Your task to perform on an android device: snooze an email in the gmail app Image 0: 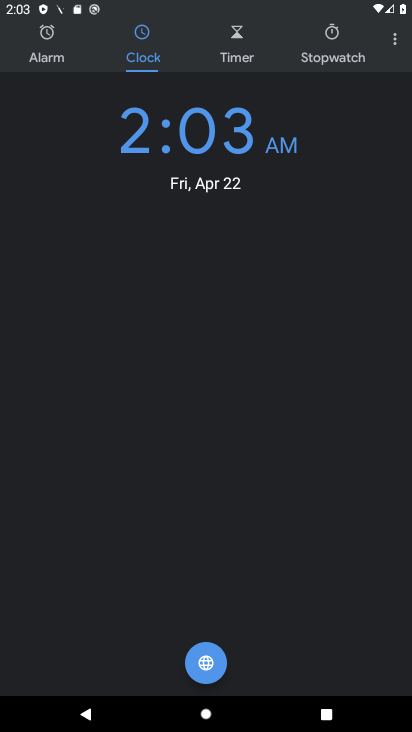
Step 0: press home button
Your task to perform on an android device: snooze an email in the gmail app Image 1: 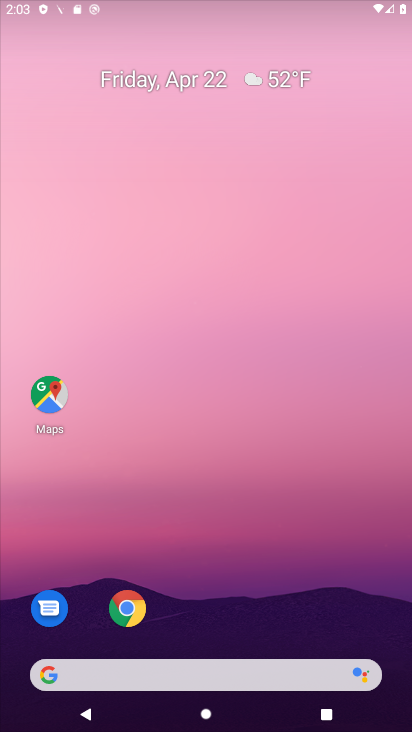
Step 1: drag from (316, 575) to (253, 100)
Your task to perform on an android device: snooze an email in the gmail app Image 2: 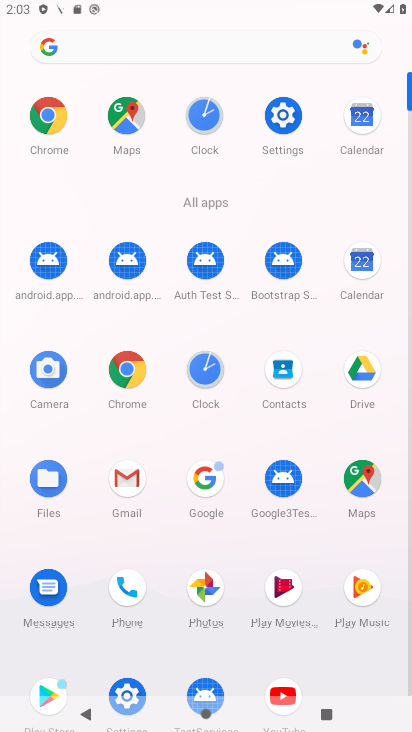
Step 2: click (129, 474)
Your task to perform on an android device: snooze an email in the gmail app Image 3: 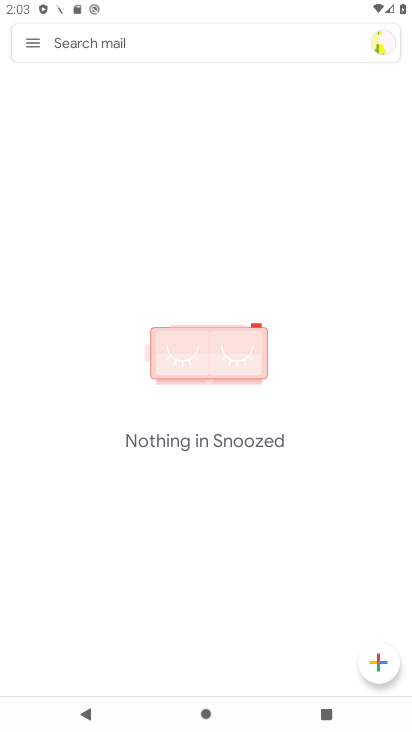
Step 3: click (22, 42)
Your task to perform on an android device: snooze an email in the gmail app Image 4: 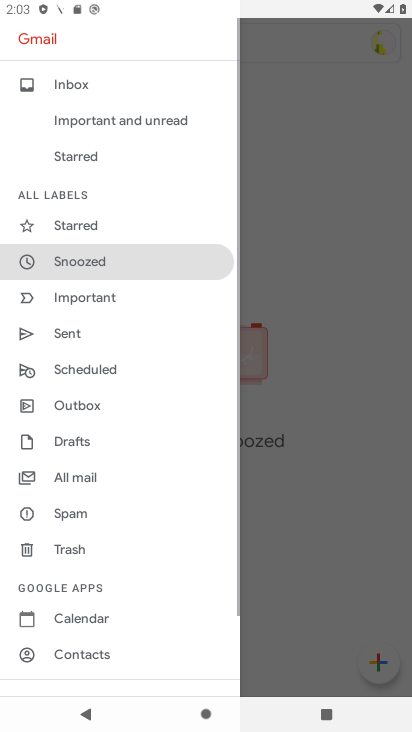
Step 4: click (102, 91)
Your task to perform on an android device: snooze an email in the gmail app Image 5: 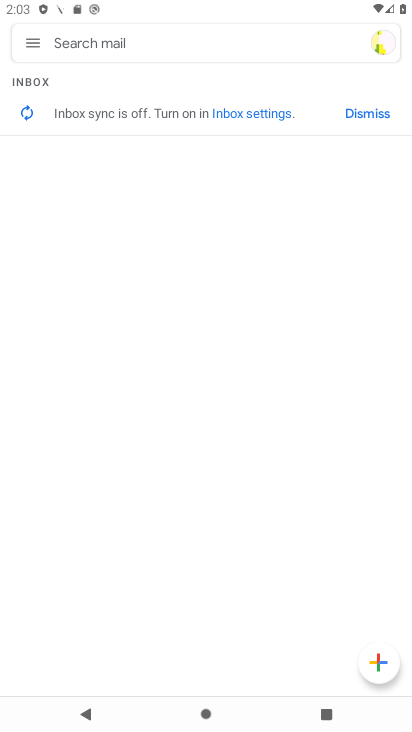
Step 5: click (34, 41)
Your task to perform on an android device: snooze an email in the gmail app Image 6: 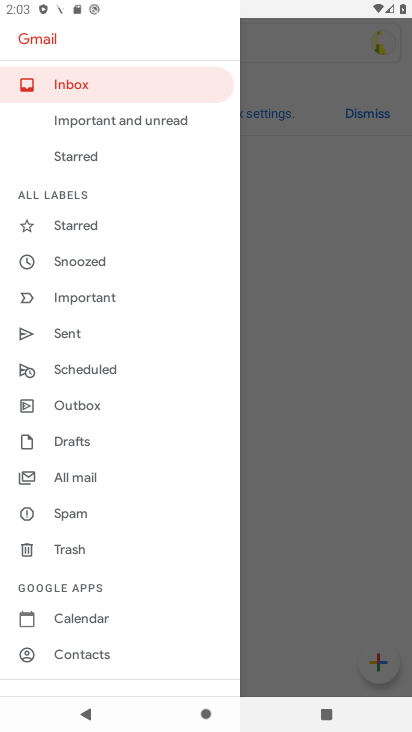
Step 6: click (97, 471)
Your task to perform on an android device: snooze an email in the gmail app Image 7: 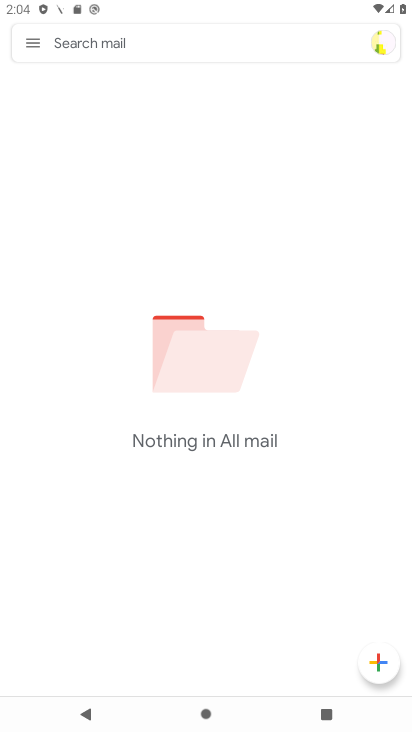
Step 7: task complete